Your task to perform on an android device: Go to Yahoo.com Image 0: 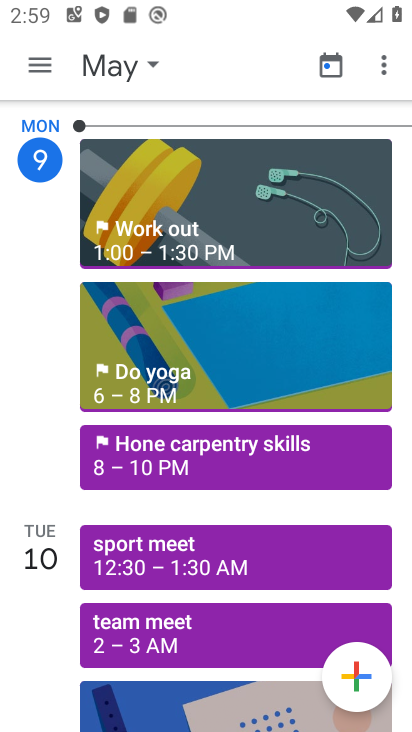
Step 0: press back button
Your task to perform on an android device: Go to Yahoo.com Image 1: 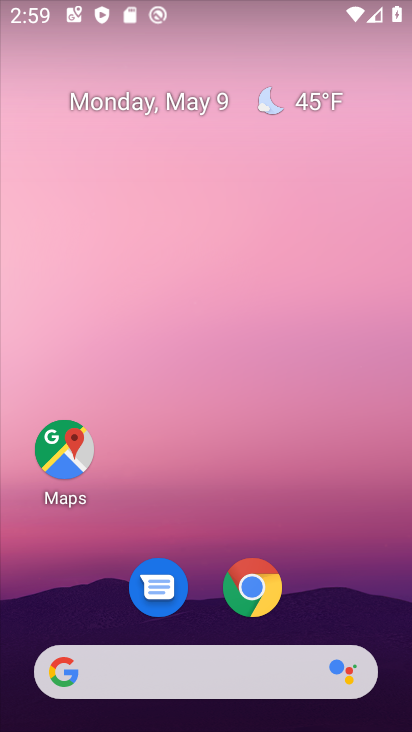
Step 1: drag from (207, 638) to (259, 215)
Your task to perform on an android device: Go to Yahoo.com Image 2: 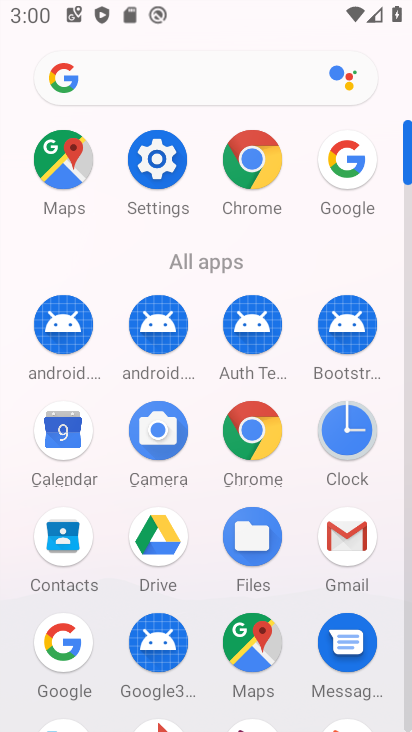
Step 2: drag from (198, 597) to (238, 423)
Your task to perform on an android device: Go to Yahoo.com Image 3: 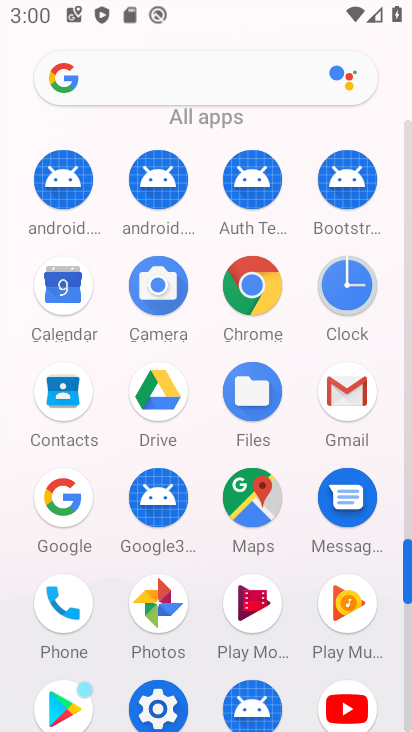
Step 3: click (265, 274)
Your task to perform on an android device: Go to Yahoo.com Image 4: 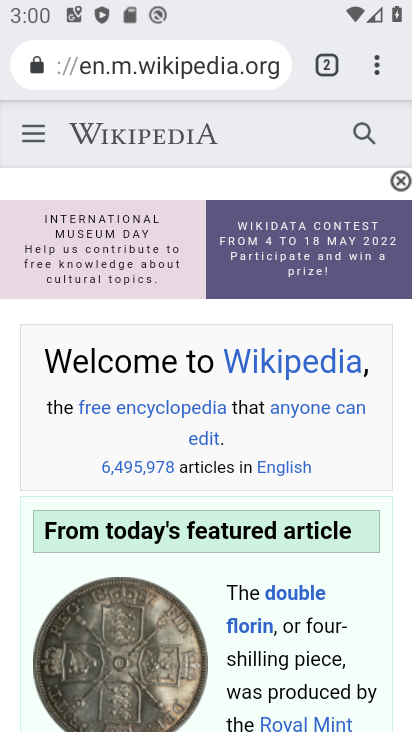
Step 4: click (311, 65)
Your task to perform on an android device: Go to Yahoo.com Image 5: 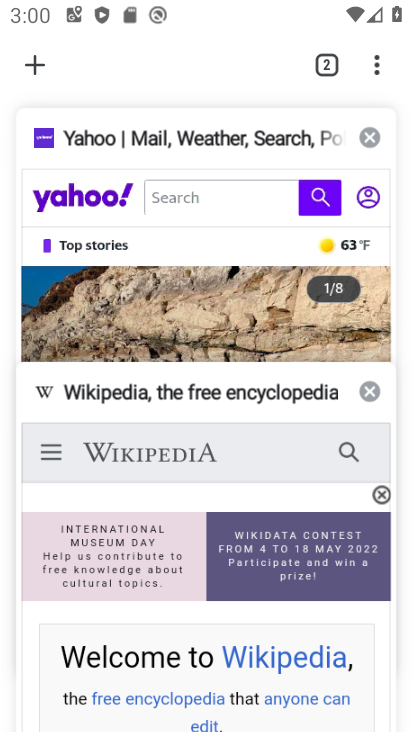
Step 5: click (44, 73)
Your task to perform on an android device: Go to Yahoo.com Image 6: 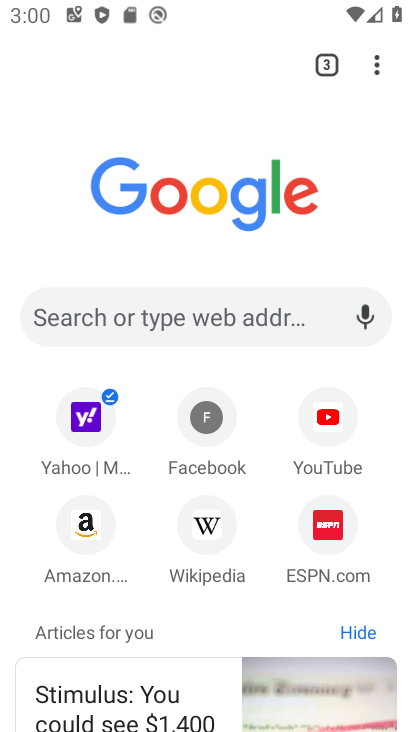
Step 6: click (95, 431)
Your task to perform on an android device: Go to Yahoo.com Image 7: 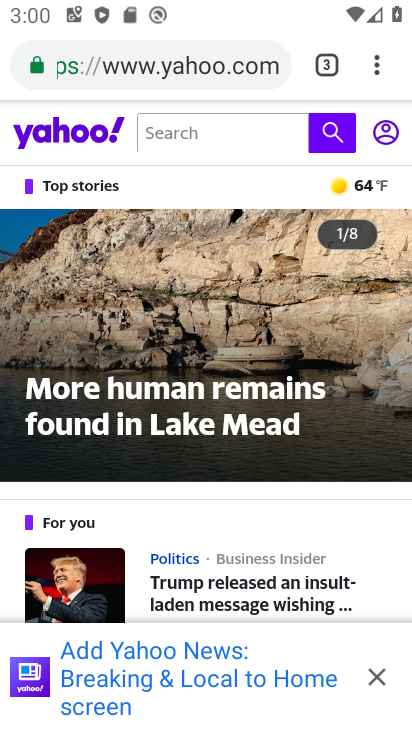
Step 7: task complete